Your task to perform on an android device: manage bookmarks in the chrome app Image 0: 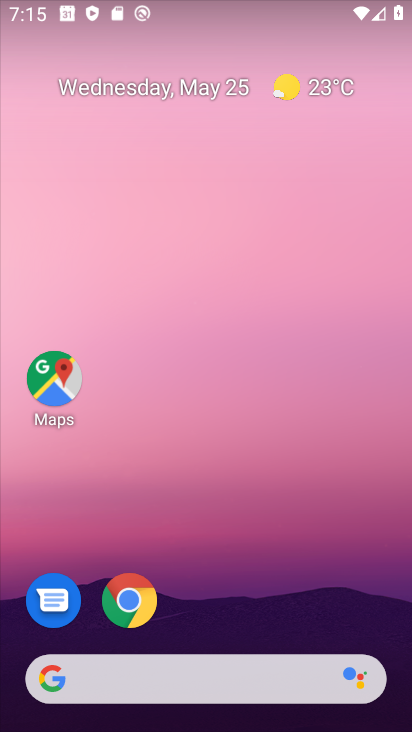
Step 0: click (130, 599)
Your task to perform on an android device: manage bookmarks in the chrome app Image 1: 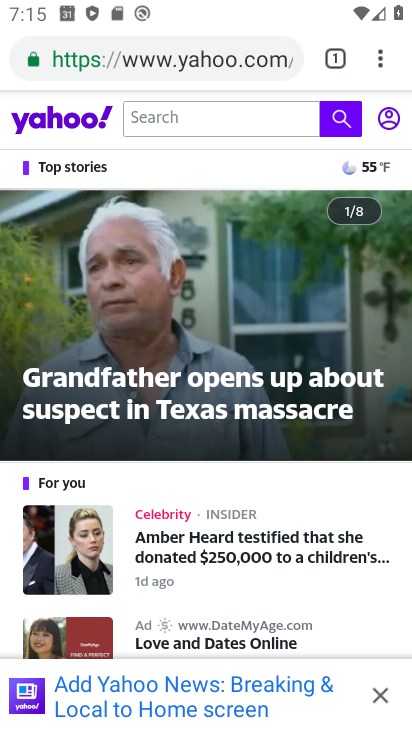
Step 1: click (381, 58)
Your task to perform on an android device: manage bookmarks in the chrome app Image 2: 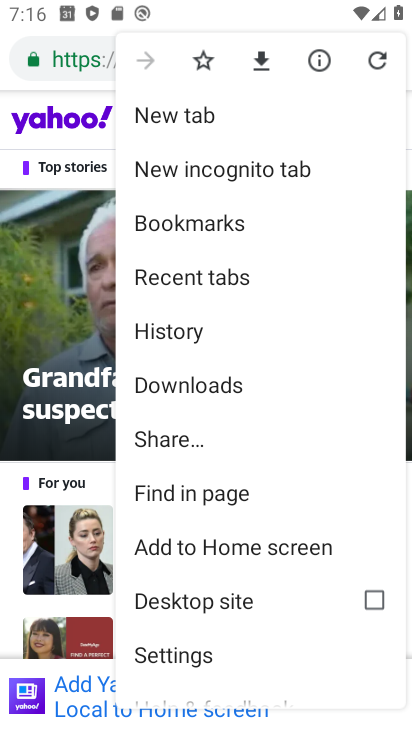
Step 2: click (225, 227)
Your task to perform on an android device: manage bookmarks in the chrome app Image 3: 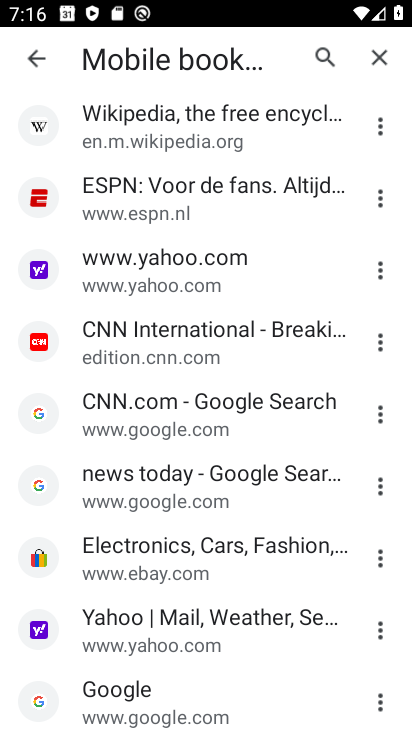
Step 3: click (378, 190)
Your task to perform on an android device: manage bookmarks in the chrome app Image 4: 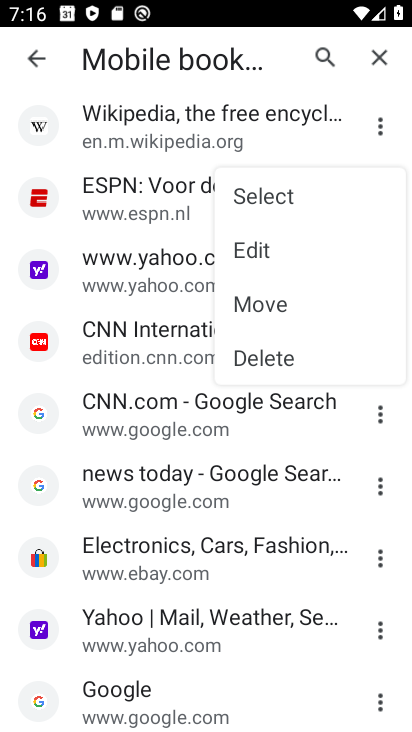
Step 4: click (242, 239)
Your task to perform on an android device: manage bookmarks in the chrome app Image 5: 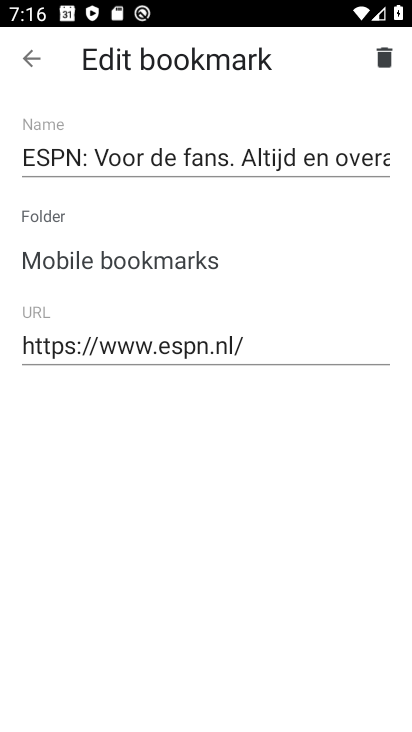
Step 5: click (385, 60)
Your task to perform on an android device: manage bookmarks in the chrome app Image 6: 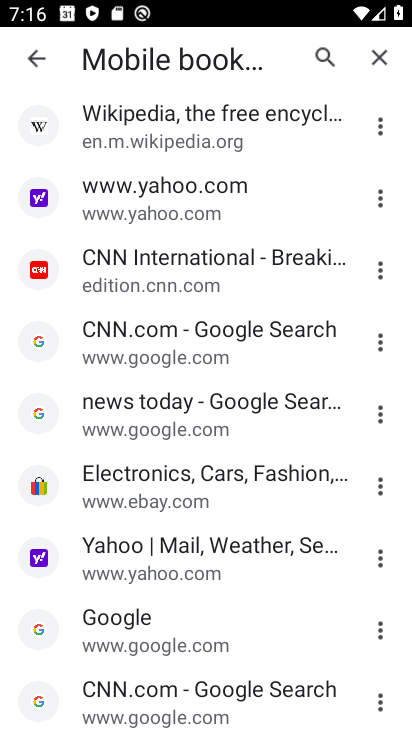
Step 6: task complete